Your task to perform on an android device: turn on data saver in the chrome app Image 0: 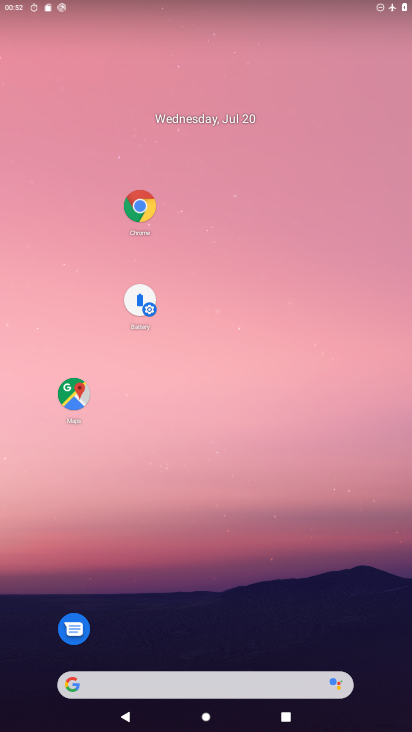
Step 0: drag from (194, 631) to (310, 20)
Your task to perform on an android device: turn on data saver in the chrome app Image 1: 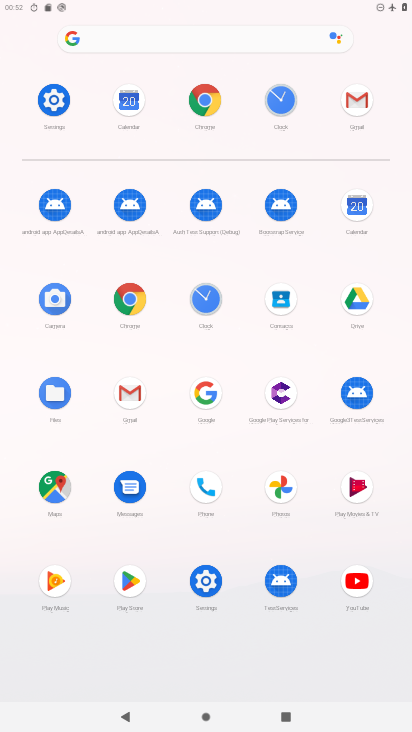
Step 1: click (203, 88)
Your task to perform on an android device: turn on data saver in the chrome app Image 2: 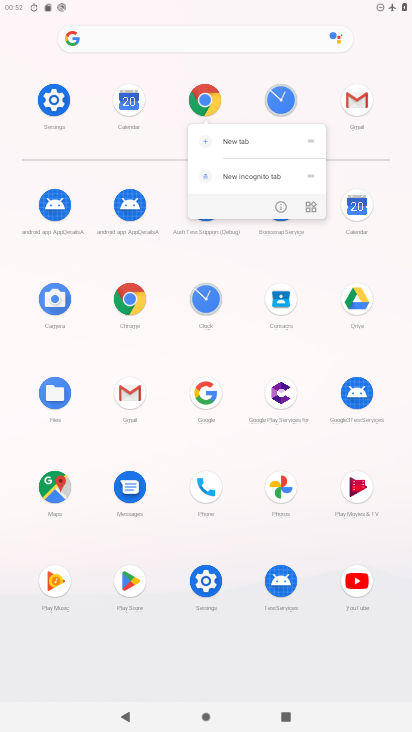
Step 2: click (278, 212)
Your task to perform on an android device: turn on data saver in the chrome app Image 3: 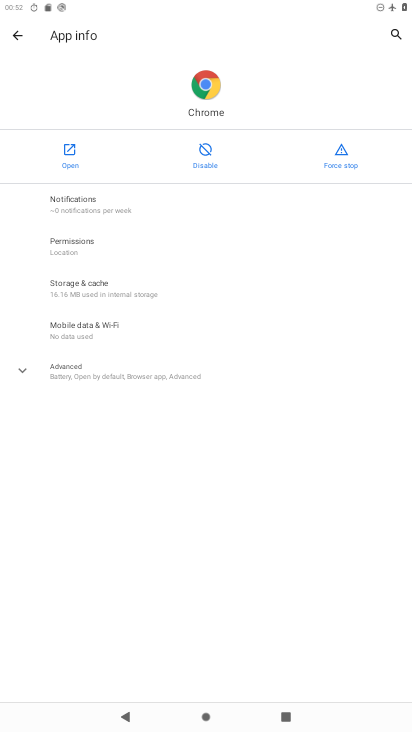
Step 3: click (73, 158)
Your task to perform on an android device: turn on data saver in the chrome app Image 4: 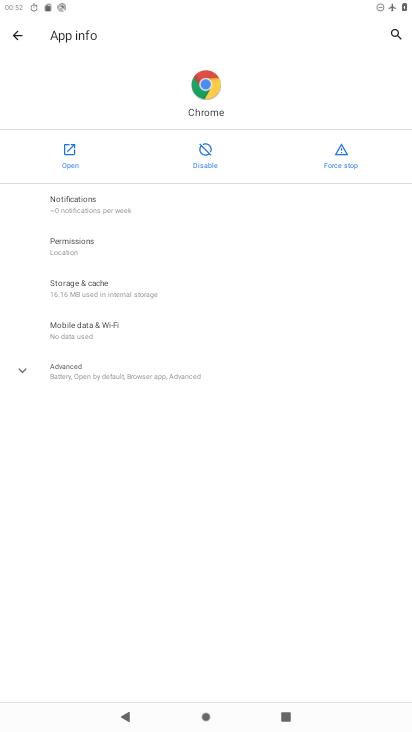
Step 4: click (73, 158)
Your task to perform on an android device: turn on data saver in the chrome app Image 5: 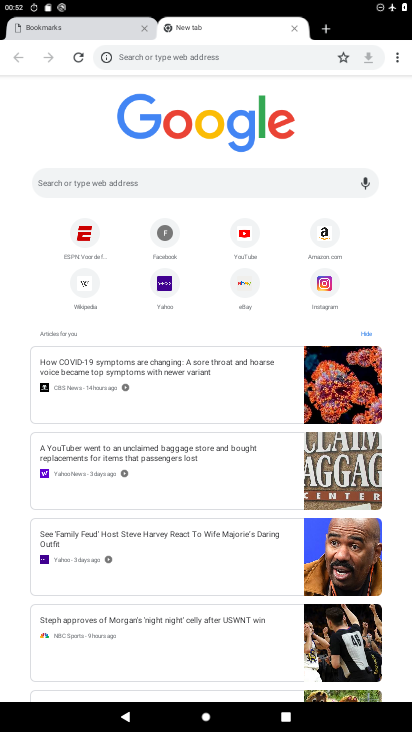
Step 5: drag from (398, 58) to (292, 269)
Your task to perform on an android device: turn on data saver in the chrome app Image 6: 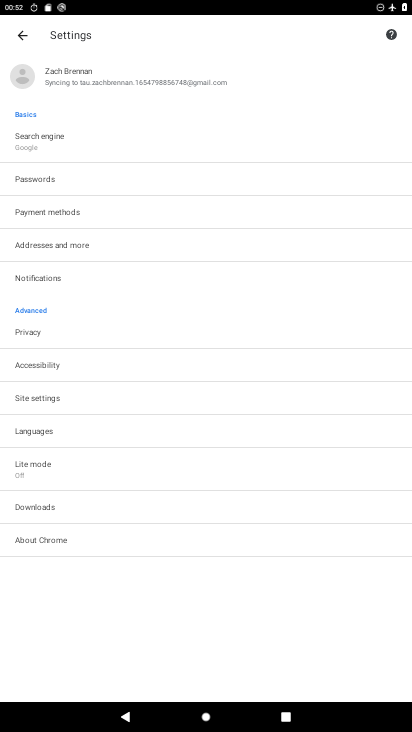
Step 6: click (60, 451)
Your task to perform on an android device: turn on data saver in the chrome app Image 7: 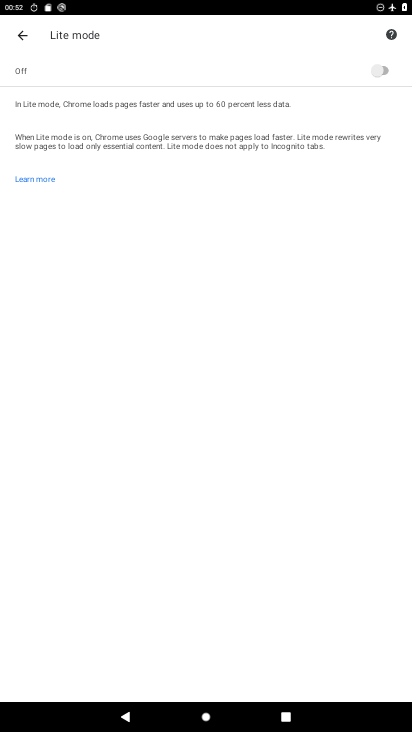
Step 7: drag from (95, 447) to (160, 254)
Your task to perform on an android device: turn on data saver in the chrome app Image 8: 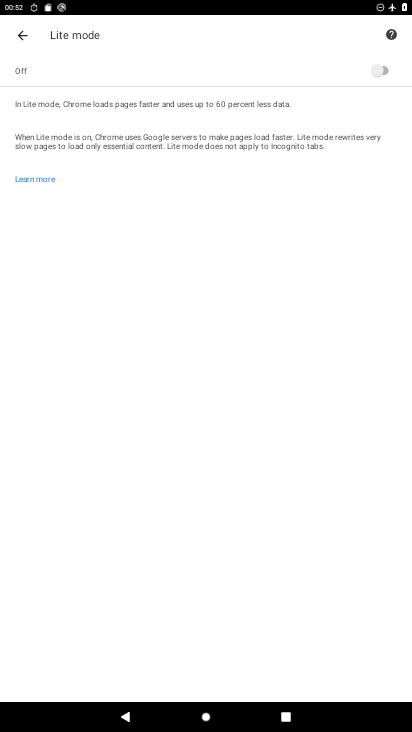
Step 8: click (370, 74)
Your task to perform on an android device: turn on data saver in the chrome app Image 9: 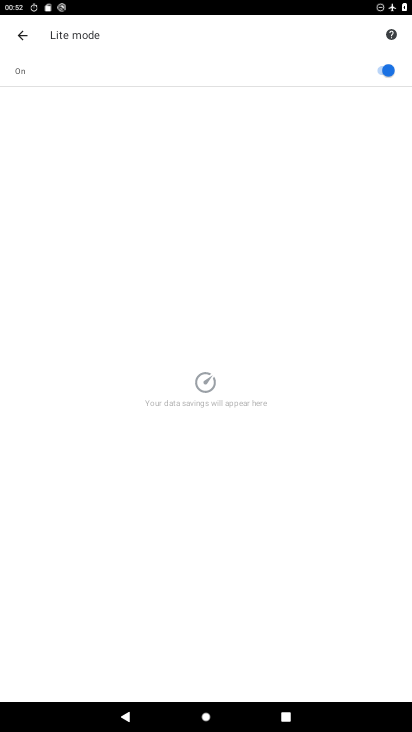
Step 9: task complete